Your task to perform on an android device: visit the assistant section in the google photos Image 0: 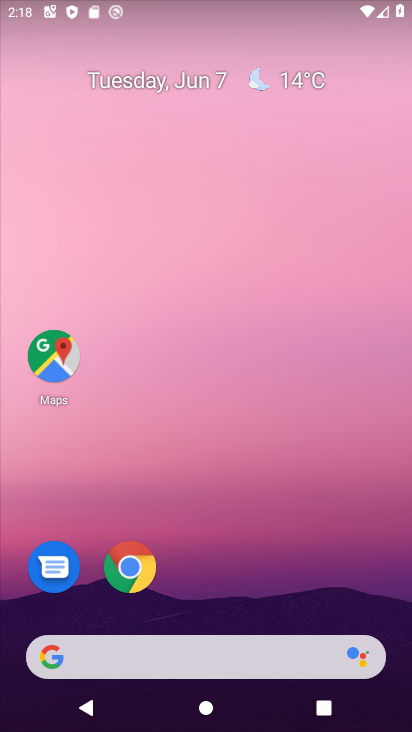
Step 0: drag from (221, 597) to (230, 189)
Your task to perform on an android device: visit the assistant section in the google photos Image 1: 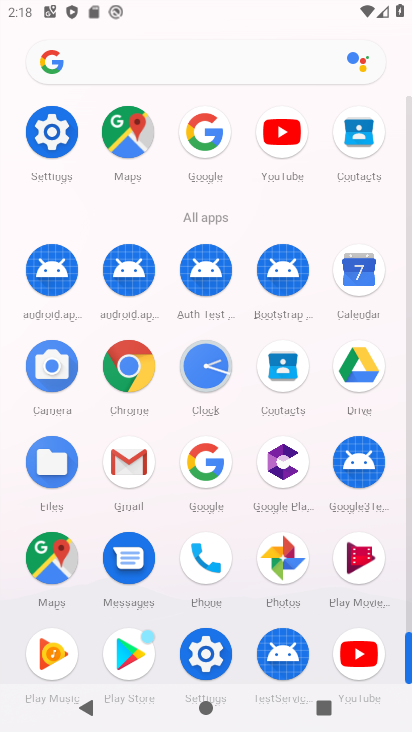
Step 1: click (288, 563)
Your task to perform on an android device: visit the assistant section in the google photos Image 2: 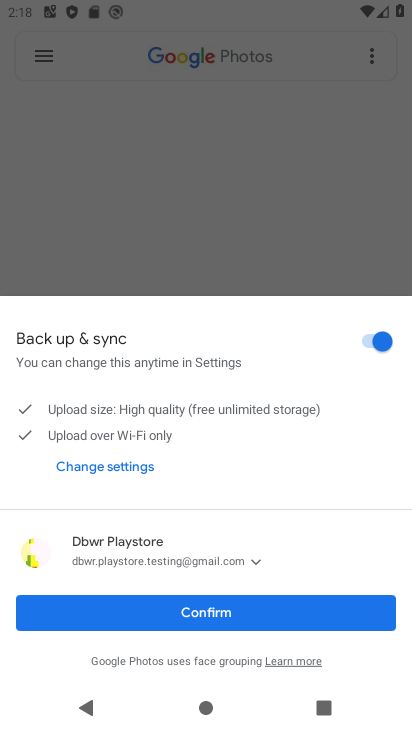
Step 2: click (287, 605)
Your task to perform on an android device: visit the assistant section in the google photos Image 3: 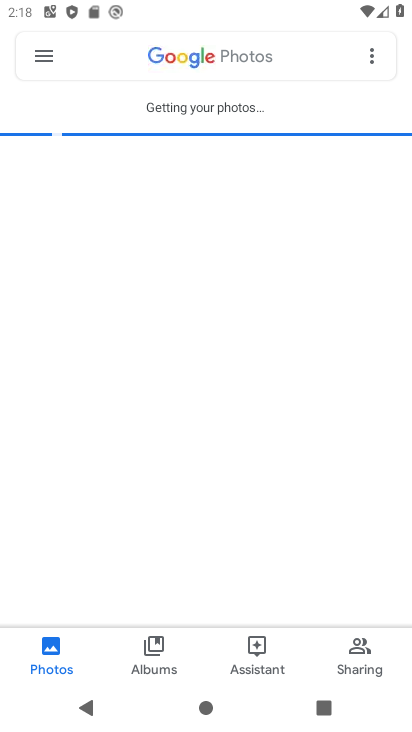
Step 3: click (264, 646)
Your task to perform on an android device: visit the assistant section in the google photos Image 4: 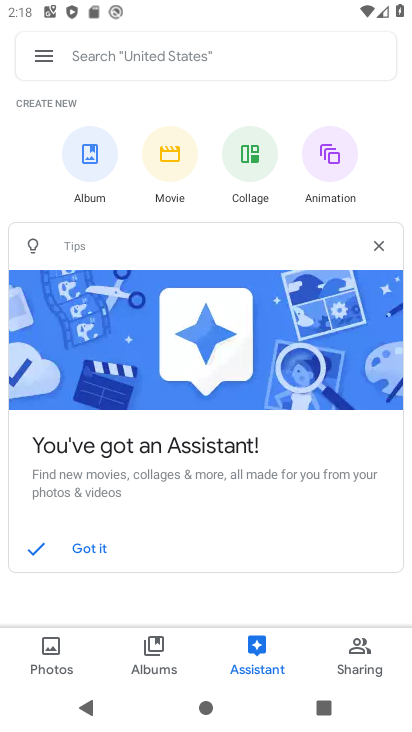
Step 4: task complete